Your task to perform on an android device: Toggle the flashlight Image 0: 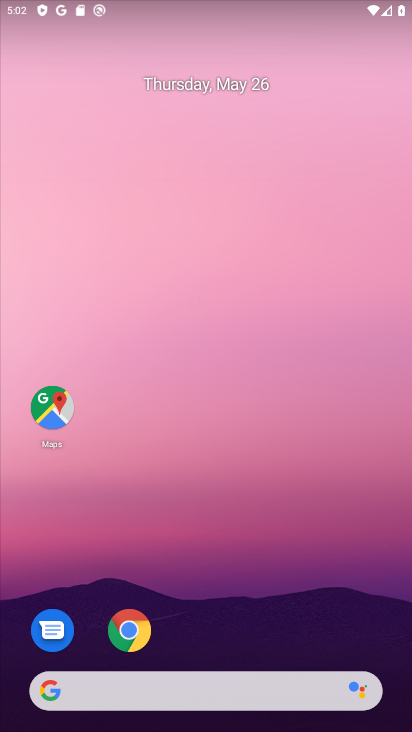
Step 0: drag from (310, 11) to (286, 623)
Your task to perform on an android device: Toggle the flashlight Image 1: 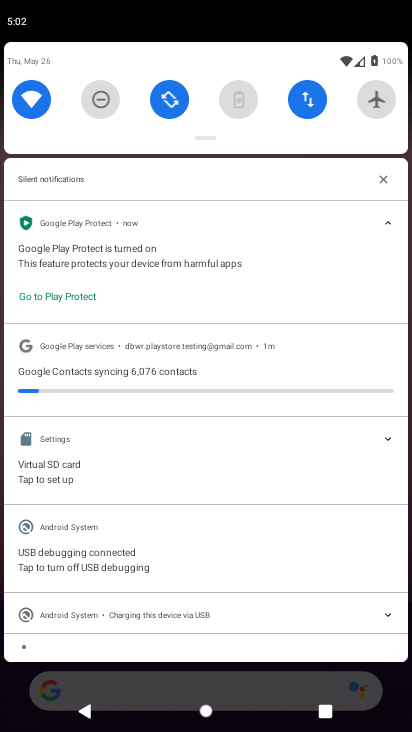
Step 1: task complete